Your task to perform on an android device: turn on location history Image 0: 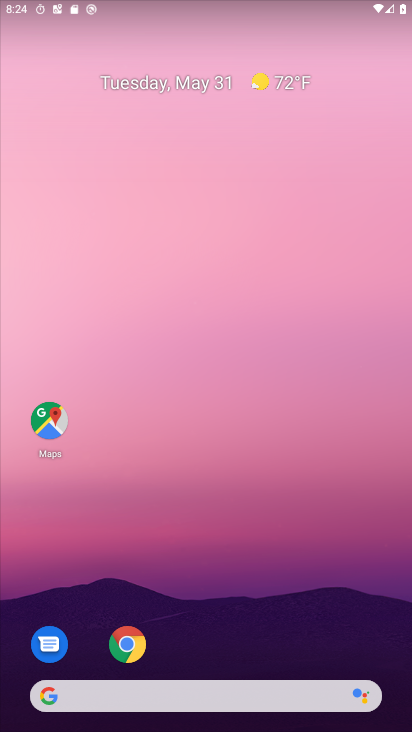
Step 0: press home button
Your task to perform on an android device: turn on location history Image 1: 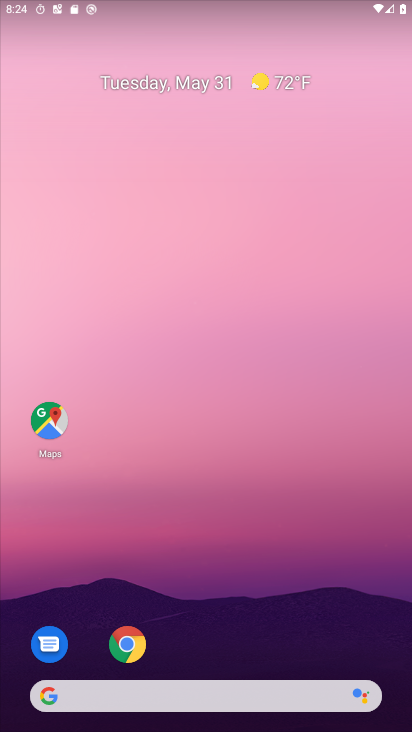
Step 1: drag from (206, 659) to (207, 30)
Your task to perform on an android device: turn on location history Image 2: 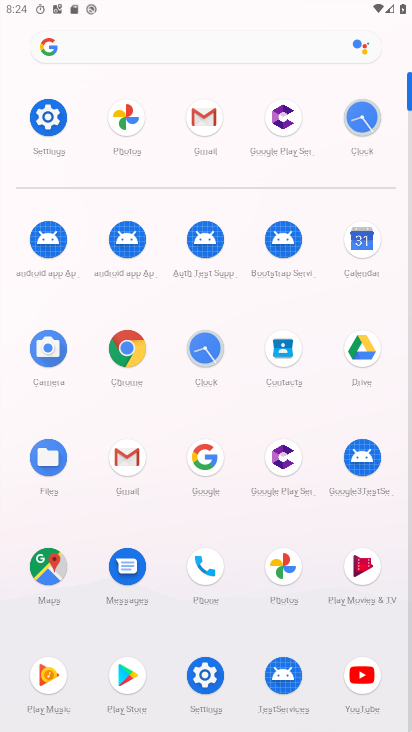
Step 2: click (202, 673)
Your task to perform on an android device: turn on location history Image 3: 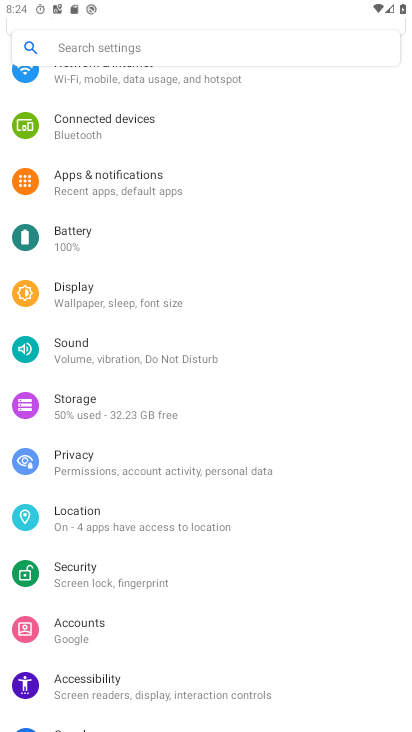
Step 3: click (96, 515)
Your task to perform on an android device: turn on location history Image 4: 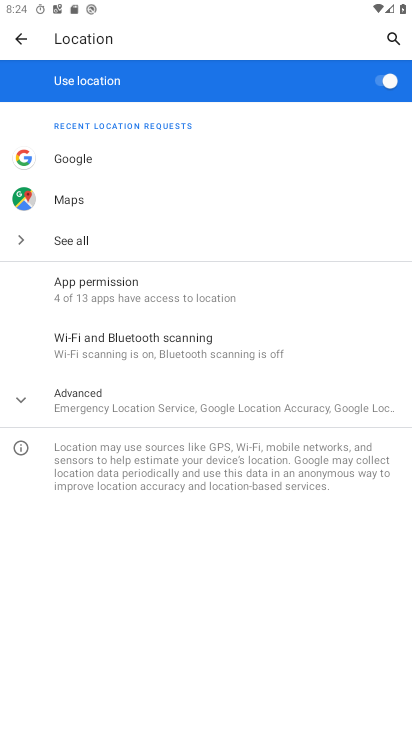
Step 4: click (41, 388)
Your task to perform on an android device: turn on location history Image 5: 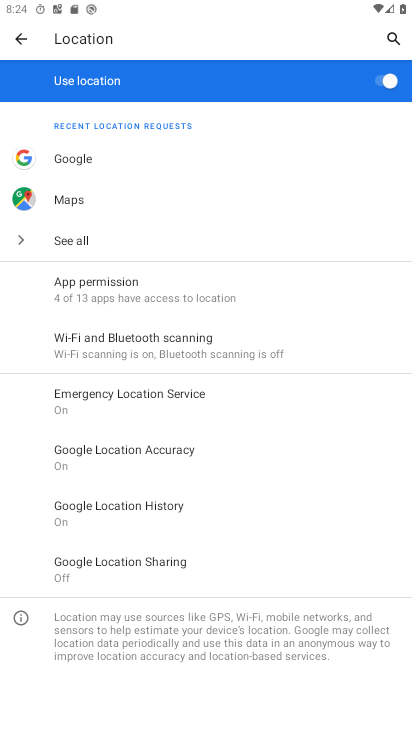
Step 5: click (161, 506)
Your task to perform on an android device: turn on location history Image 6: 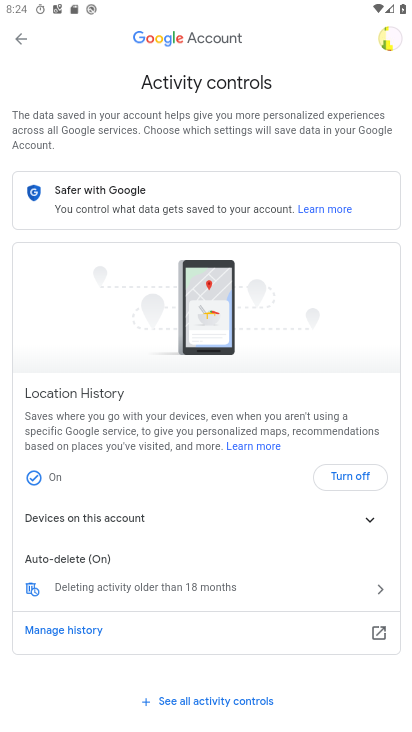
Step 6: task complete